Your task to perform on an android device: Open the stopwatch Image 0: 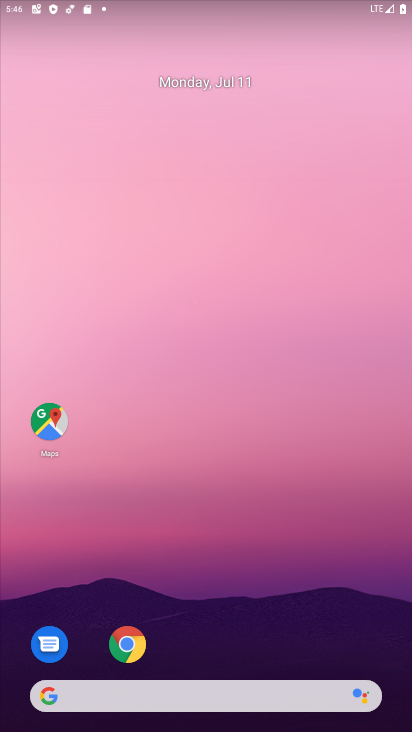
Step 0: drag from (358, 693) to (319, 70)
Your task to perform on an android device: Open the stopwatch Image 1: 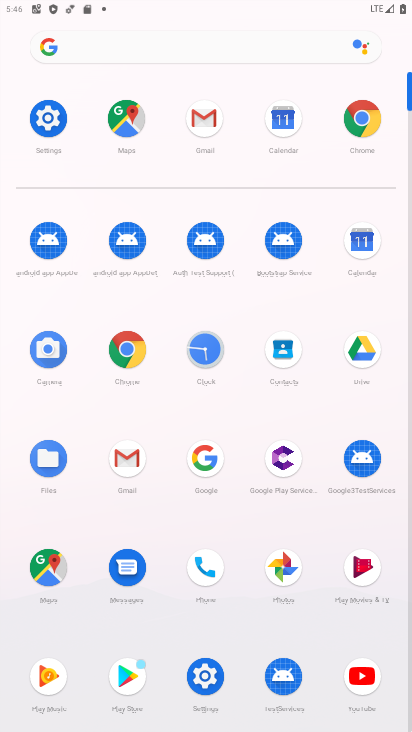
Step 1: click (207, 347)
Your task to perform on an android device: Open the stopwatch Image 2: 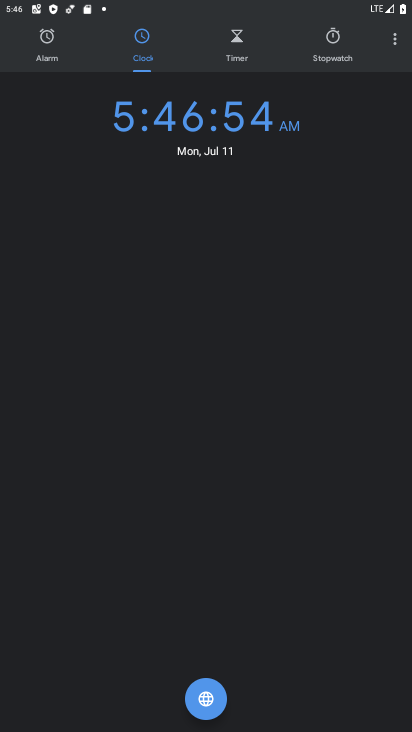
Step 2: click (54, 40)
Your task to perform on an android device: Open the stopwatch Image 3: 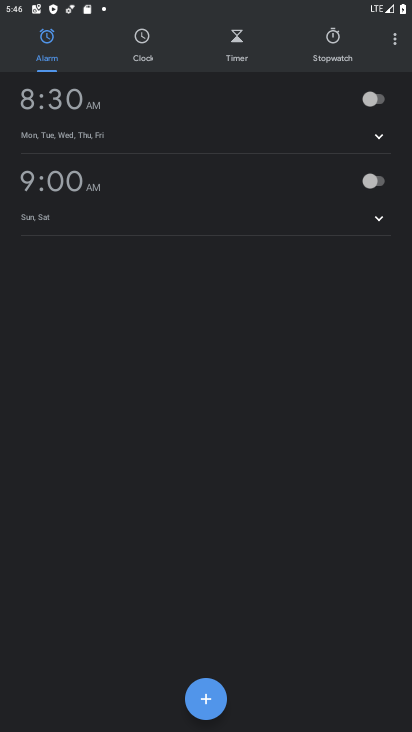
Step 3: click (334, 44)
Your task to perform on an android device: Open the stopwatch Image 4: 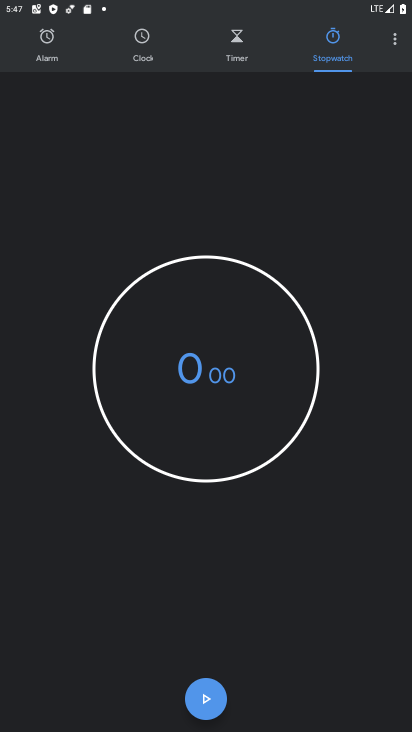
Step 4: click (209, 708)
Your task to perform on an android device: Open the stopwatch Image 5: 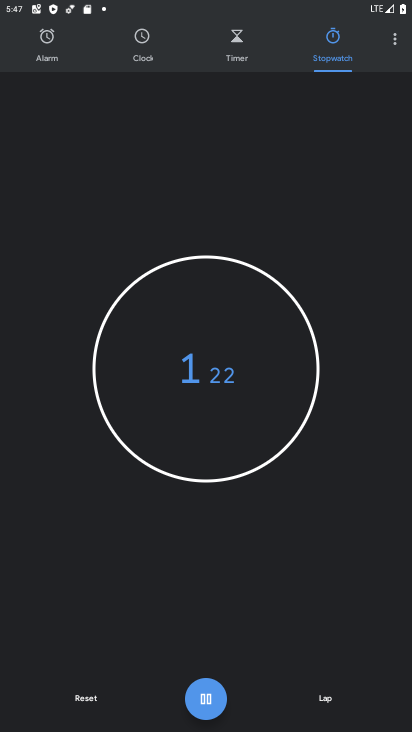
Step 5: task complete